Your task to perform on an android device: Search for Italian restaurants on Maps Image 0: 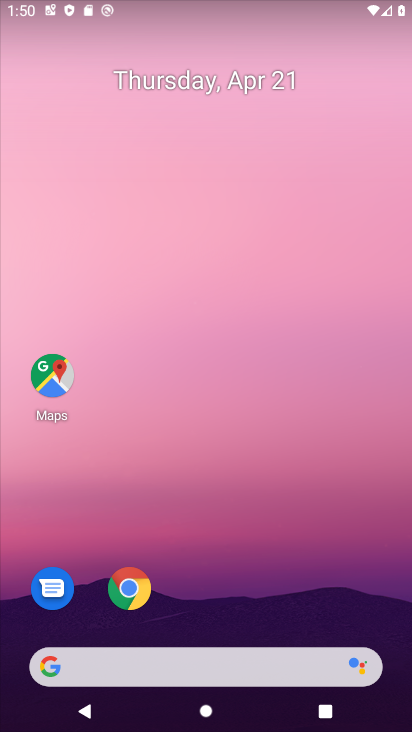
Step 0: drag from (214, 616) to (222, 407)
Your task to perform on an android device: Search for Italian restaurants on Maps Image 1: 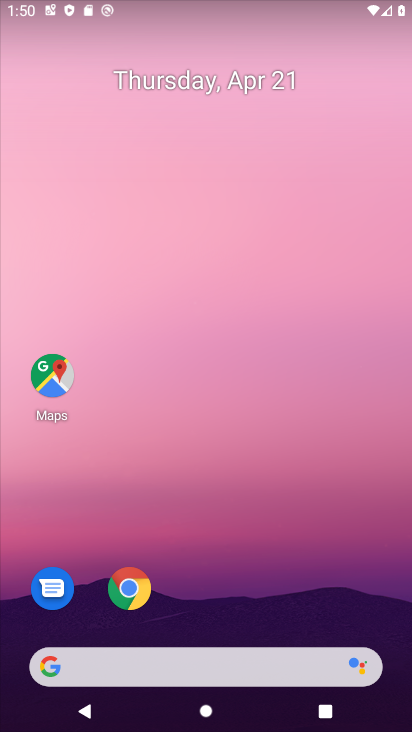
Step 1: drag from (196, 568) to (280, 1)
Your task to perform on an android device: Search for Italian restaurants on Maps Image 2: 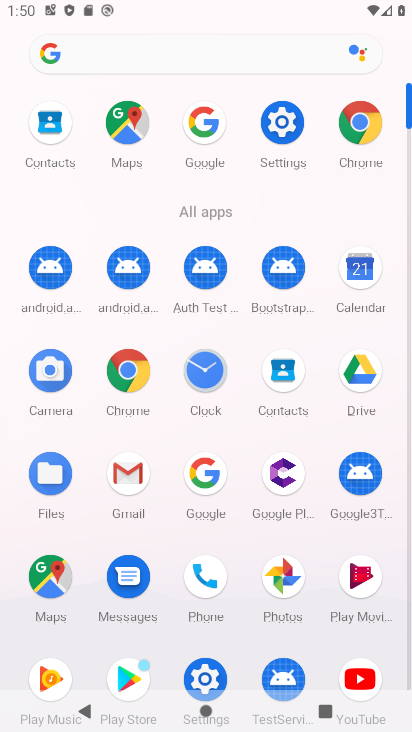
Step 2: click (56, 582)
Your task to perform on an android device: Search for Italian restaurants on Maps Image 3: 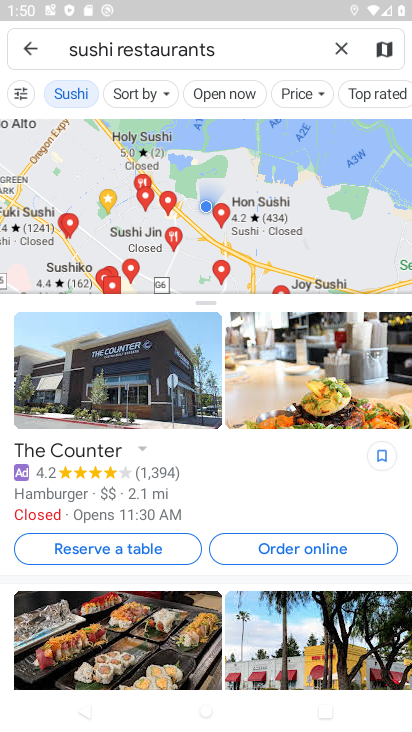
Step 3: click (343, 44)
Your task to perform on an android device: Search for Italian restaurants on Maps Image 4: 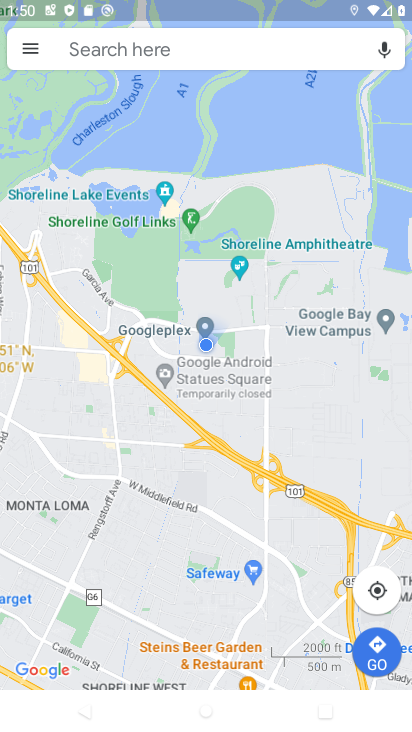
Step 4: click (303, 44)
Your task to perform on an android device: Search for Italian restaurants on Maps Image 5: 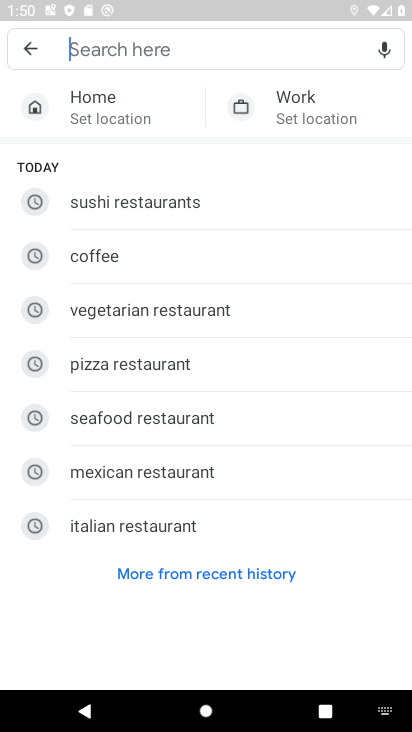
Step 5: click (136, 518)
Your task to perform on an android device: Search for Italian restaurants on Maps Image 6: 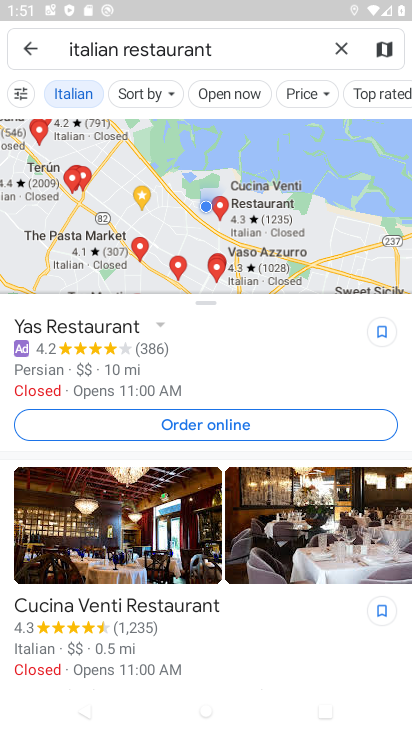
Step 6: task complete